Your task to perform on an android device: turn on the 24-hour format for clock Image 0: 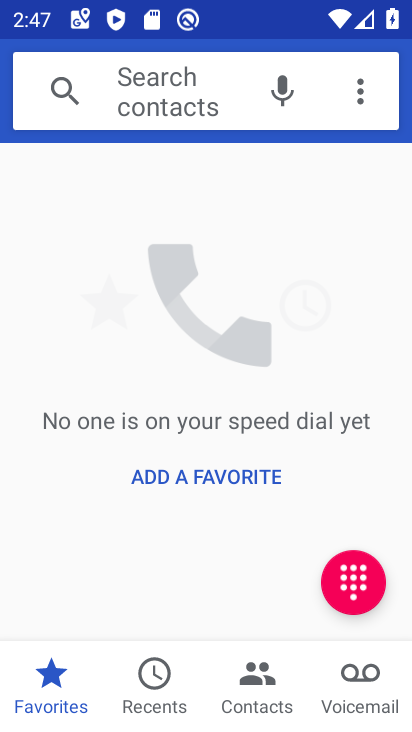
Step 0: press home button
Your task to perform on an android device: turn on the 24-hour format for clock Image 1: 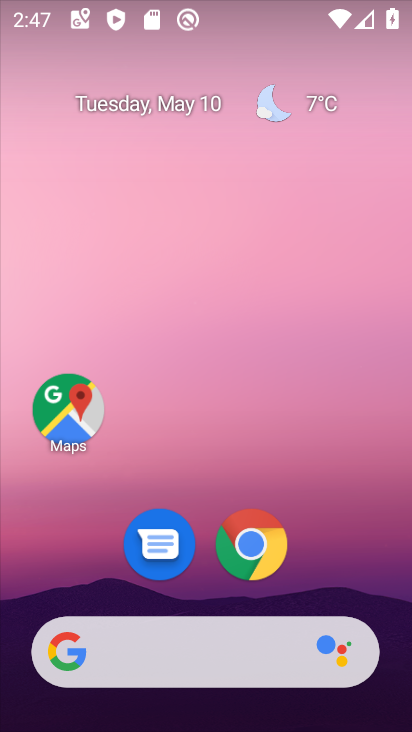
Step 1: drag from (392, 575) to (369, 175)
Your task to perform on an android device: turn on the 24-hour format for clock Image 2: 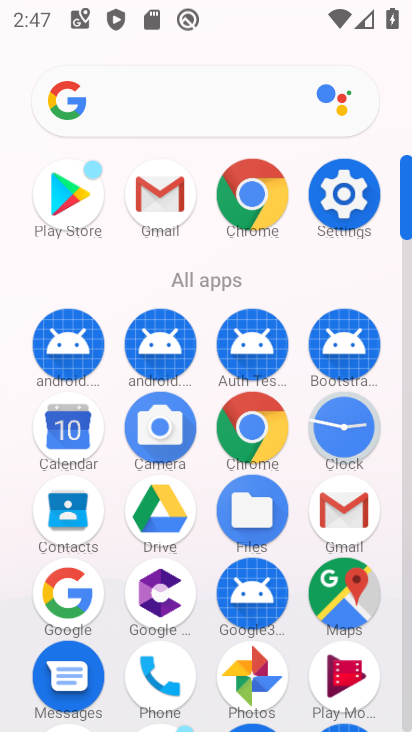
Step 2: click (333, 444)
Your task to perform on an android device: turn on the 24-hour format for clock Image 3: 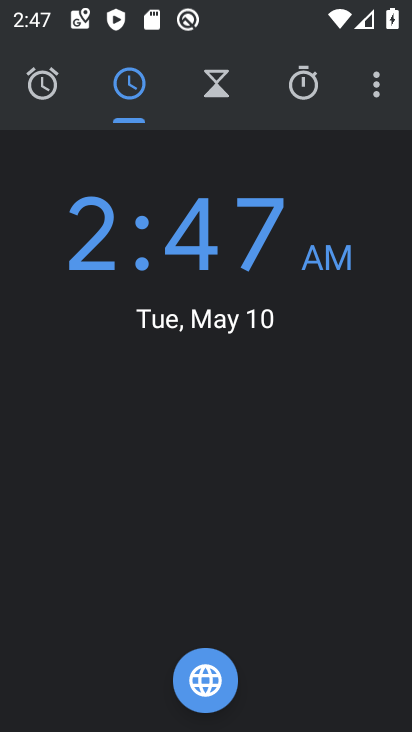
Step 3: click (380, 96)
Your task to perform on an android device: turn on the 24-hour format for clock Image 4: 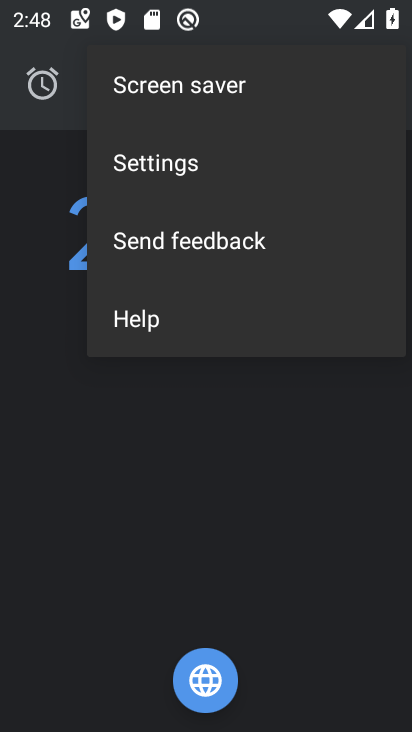
Step 4: click (262, 156)
Your task to perform on an android device: turn on the 24-hour format for clock Image 5: 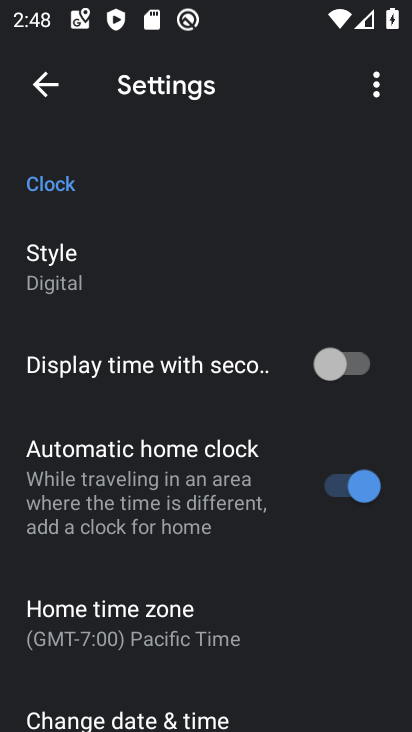
Step 5: drag from (239, 632) to (248, 342)
Your task to perform on an android device: turn on the 24-hour format for clock Image 6: 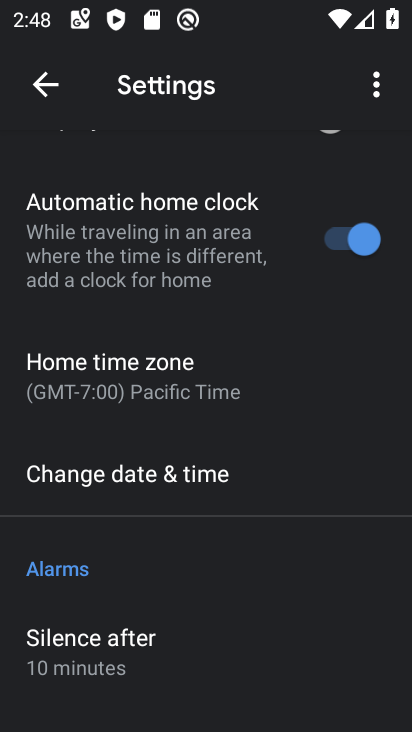
Step 6: drag from (226, 613) to (258, 482)
Your task to perform on an android device: turn on the 24-hour format for clock Image 7: 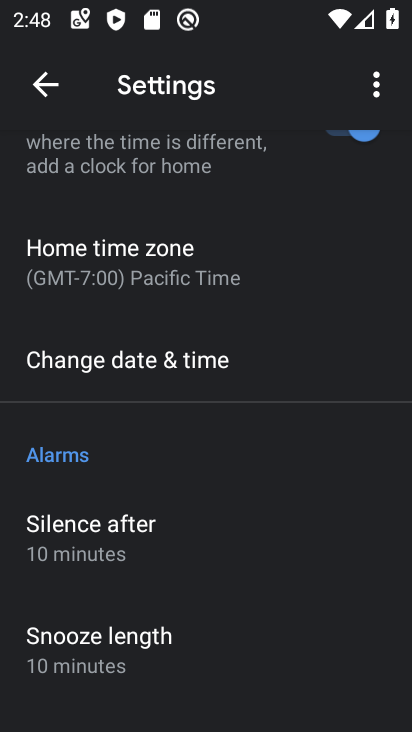
Step 7: click (254, 367)
Your task to perform on an android device: turn on the 24-hour format for clock Image 8: 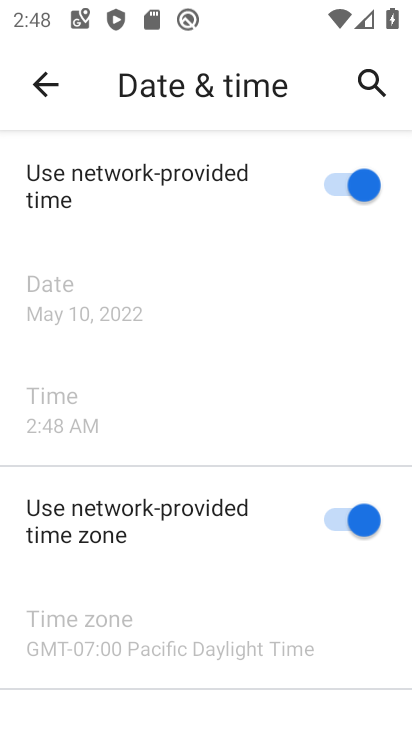
Step 8: drag from (227, 633) to (236, 342)
Your task to perform on an android device: turn on the 24-hour format for clock Image 9: 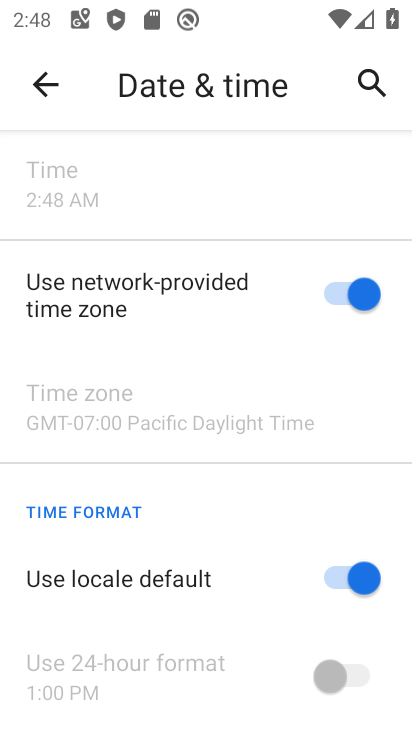
Step 9: click (327, 565)
Your task to perform on an android device: turn on the 24-hour format for clock Image 10: 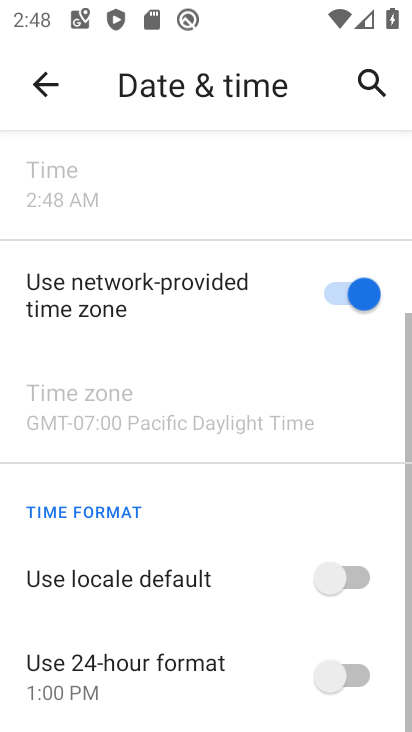
Step 10: click (364, 682)
Your task to perform on an android device: turn on the 24-hour format for clock Image 11: 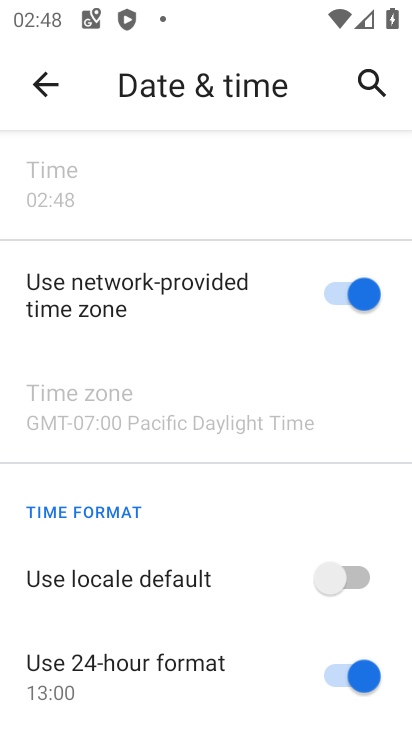
Step 11: task complete